Your task to perform on an android device: clear all cookies in the chrome app Image 0: 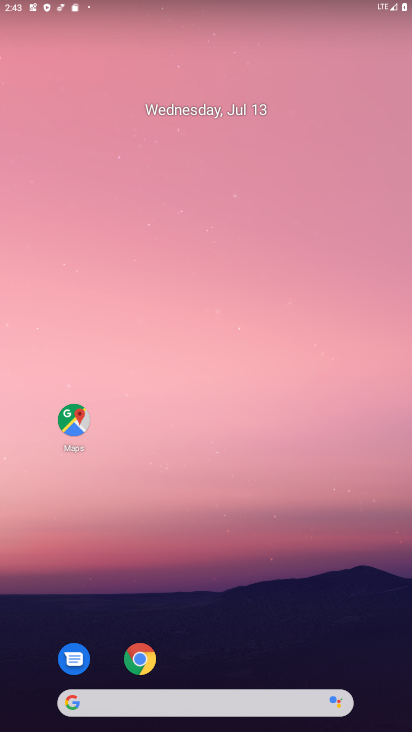
Step 0: click (138, 661)
Your task to perform on an android device: clear all cookies in the chrome app Image 1: 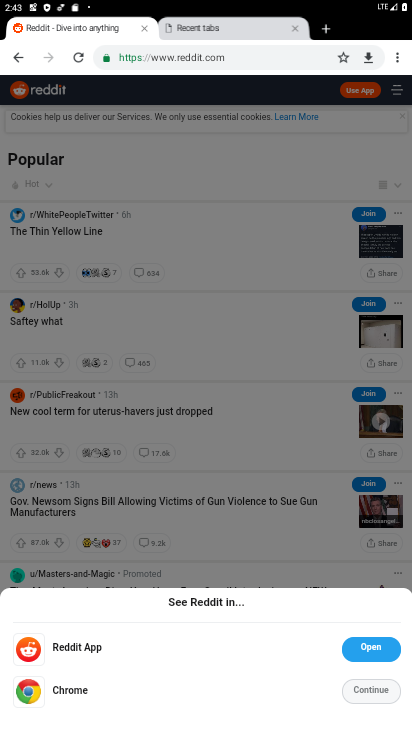
Step 1: click (394, 61)
Your task to perform on an android device: clear all cookies in the chrome app Image 2: 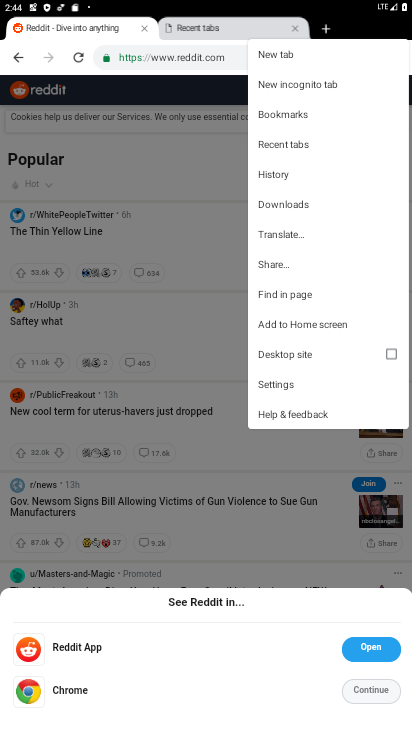
Step 2: click (269, 174)
Your task to perform on an android device: clear all cookies in the chrome app Image 3: 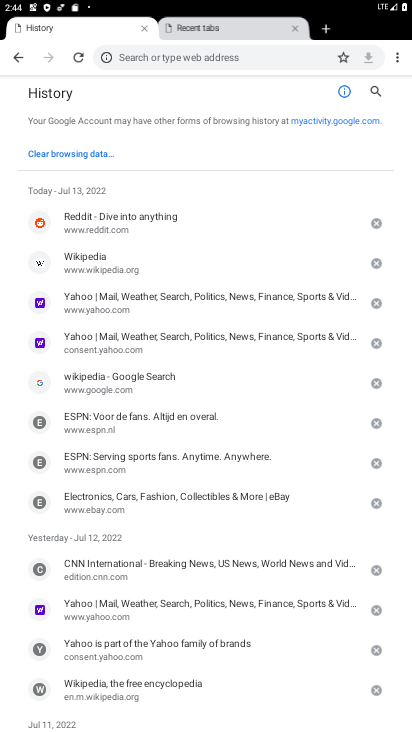
Step 3: click (69, 151)
Your task to perform on an android device: clear all cookies in the chrome app Image 4: 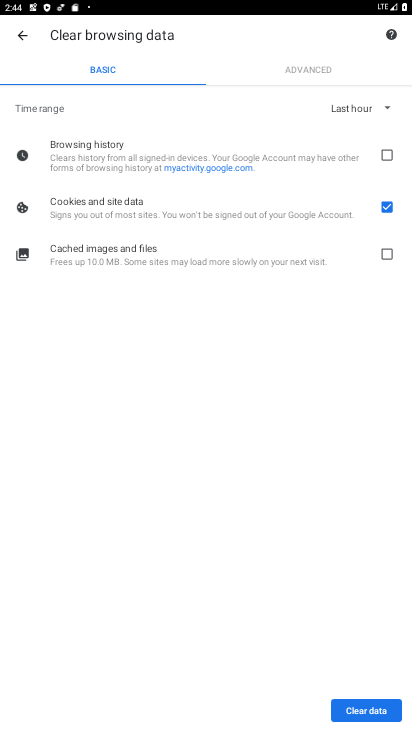
Step 4: click (366, 710)
Your task to perform on an android device: clear all cookies in the chrome app Image 5: 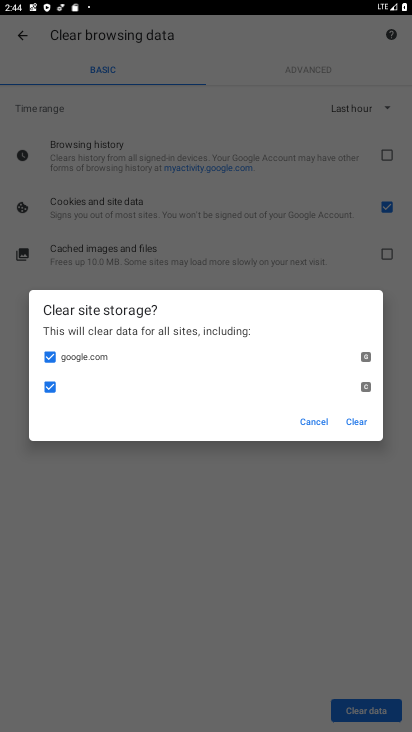
Step 5: click (355, 418)
Your task to perform on an android device: clear all cookies in the chrome app Image 6: 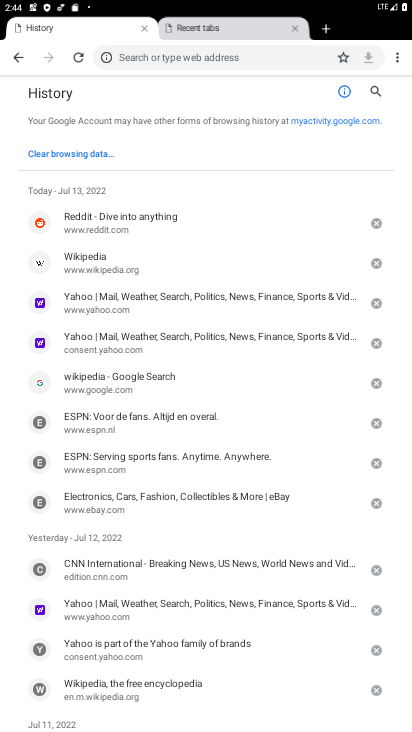
Step 6: task complete